Your task to perform on an android device: change the clock display to analog Image 0: 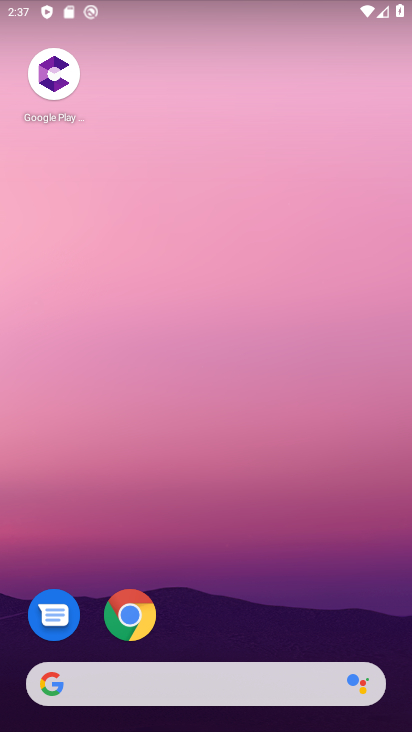
Step 0: drag from (253, 663) to (316, 279)
Your task to perform on an android device: change the clock display to analog Image 1: 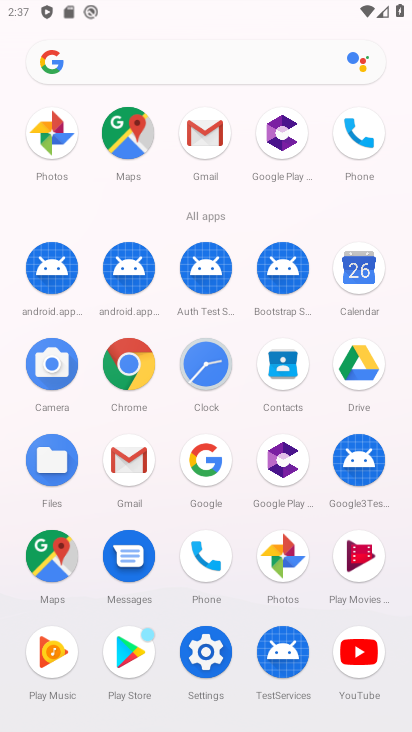
Step 1: click (214, 357)
Your task to perform on an android device: change the clock display to analog Image 2: 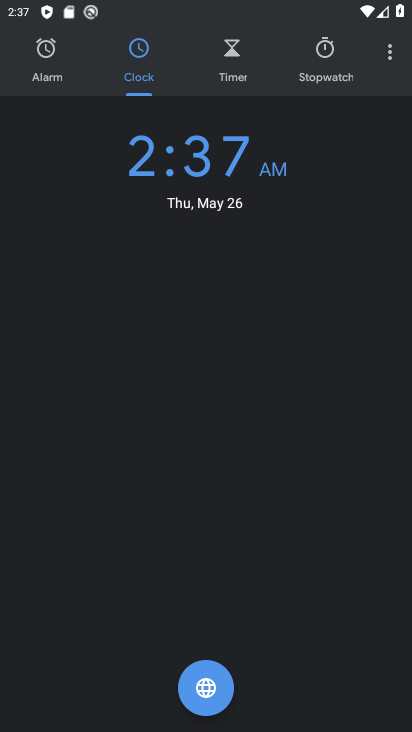
Step 2: click (388, 54)
Your task to perform on an android device: change the clock display to analog Image 3: 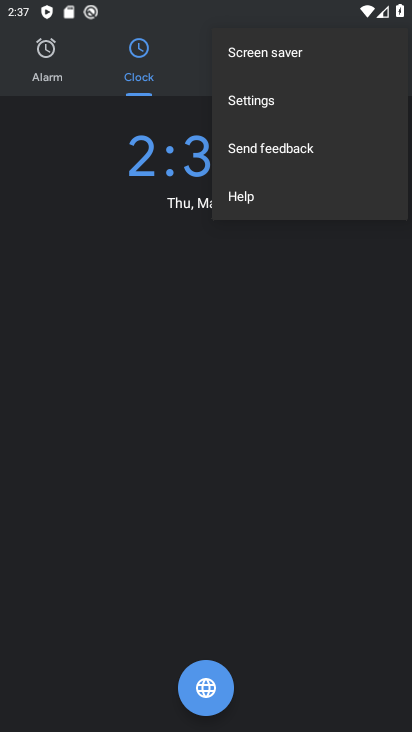
Step 3: click (256, 104)
Your task to perform on an android device: change the clock display to analog Image 4: 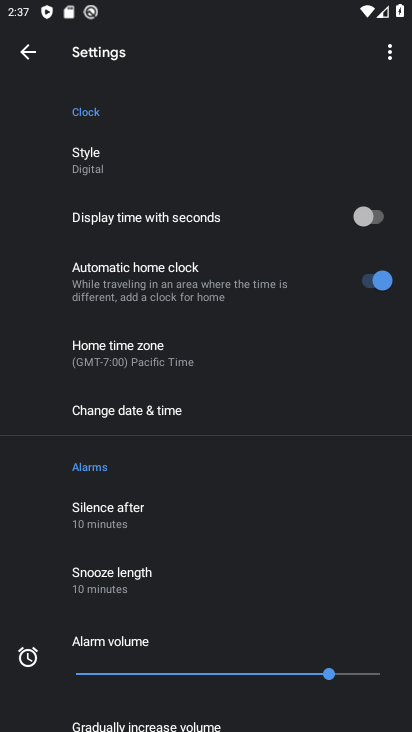
Step 4: click (207, 169)
Your task to perform on an android device: change the clock display to analog Image 5: 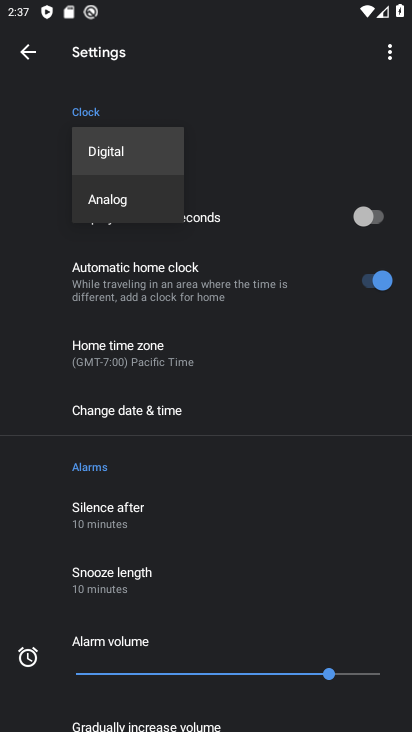
Step 5: click (141, 195)
Your task to perform on an android device: change the clock display to analog Image 6: 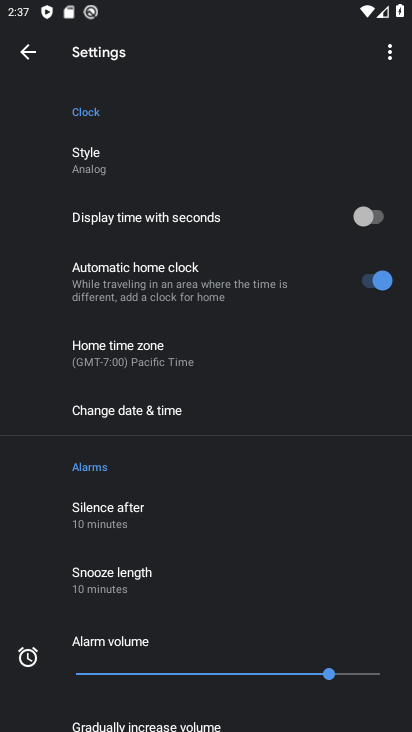
Step 6: task complete